Your task to perform on an android device: Search for seafood restaurants on Google Maps Image 0: 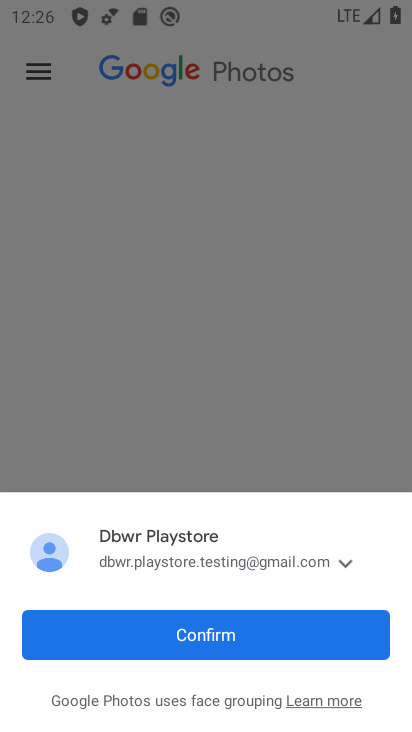
Step 0: press home button
Your task to perform on an android device: Search for seafood restaurants on Google Maps Image 1: 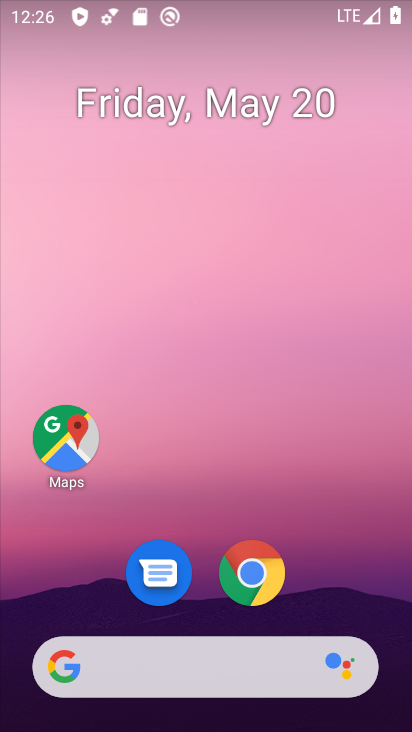
Step 1: click (82, 444)
Your task to perform on an android device: Search for seafood restaurants on Google Maps Image 2: 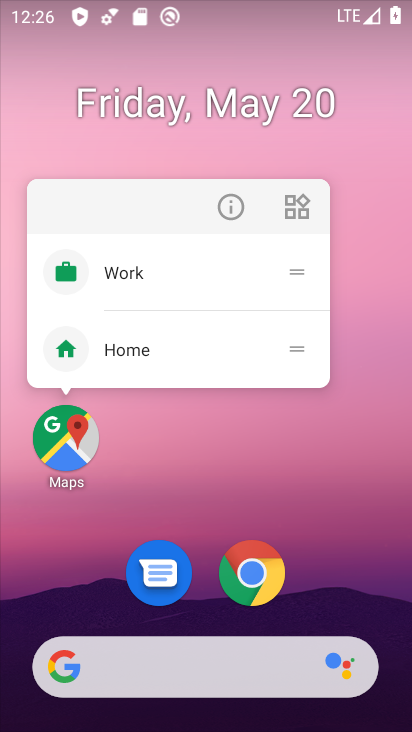
Step 2: click (63, 422)
Your task to perform on an android device: Search for seafood restaurants on Google Maps Image 3: 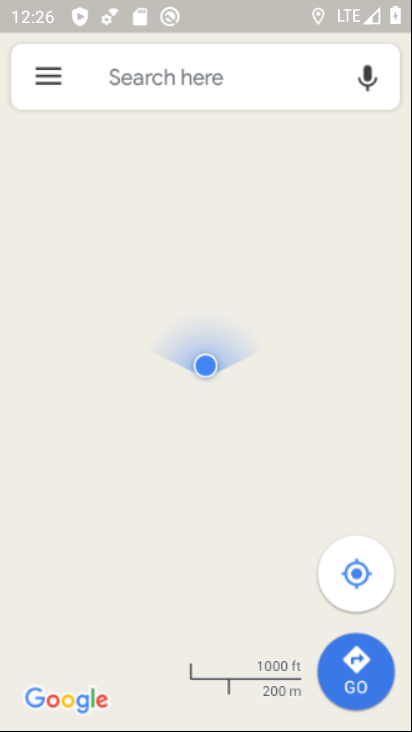
Step 3: click (132, 80)
Your task to perform on an android device: Search for seafood restaurants on Google Maps Image 4: 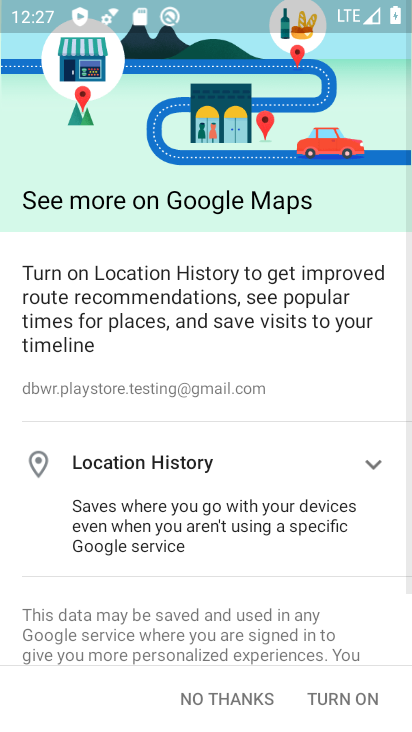
Step 4: type "seafood restaurants"
Your task to perform on an android device: Search for seafood restaurants on Google Maps Image 5: 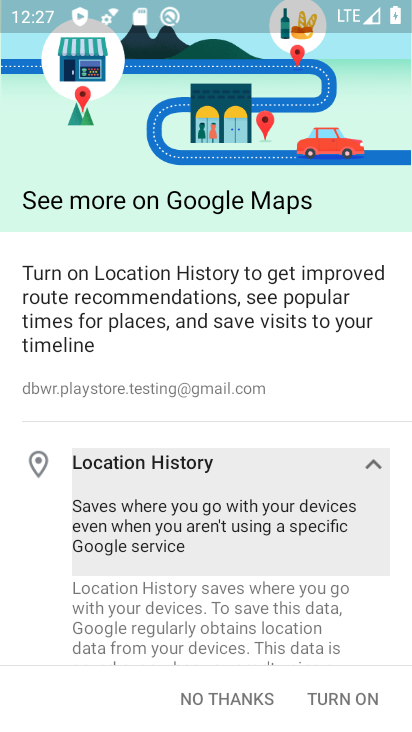
Step 5: click (249, 706)
Your task to perform on an android device: Search for seafood restaurants on Google Maps Image 6: 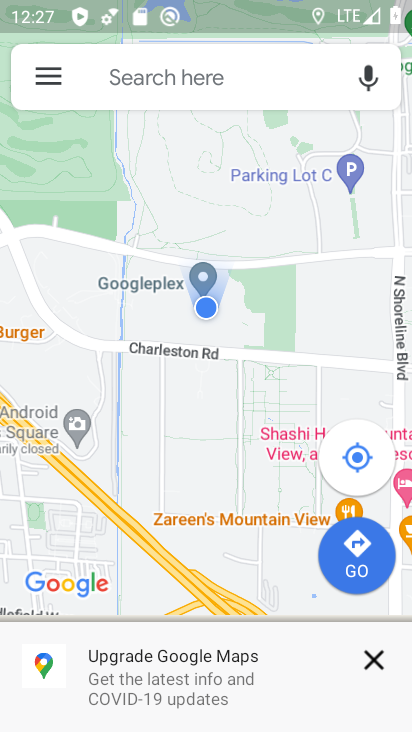
Step 6: click (189, 82)
Your task to perform on an android device: Search for seafood restaurants on Google Maps Image 7: 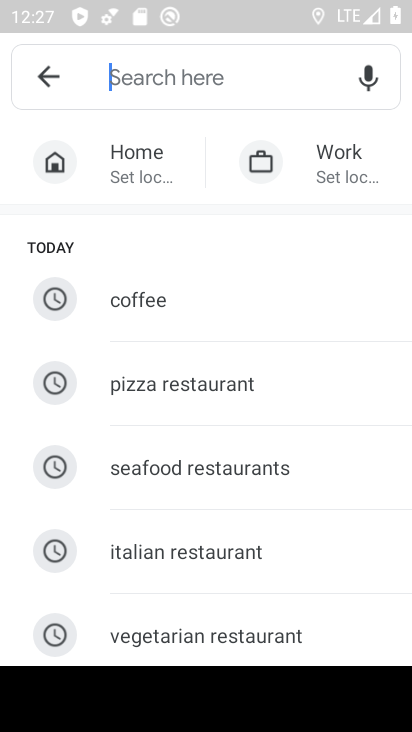
Step 7: type "seafood restaurants"
Your task to perform on an android device: Search for seafood restaurants on Google Maps Image 8: 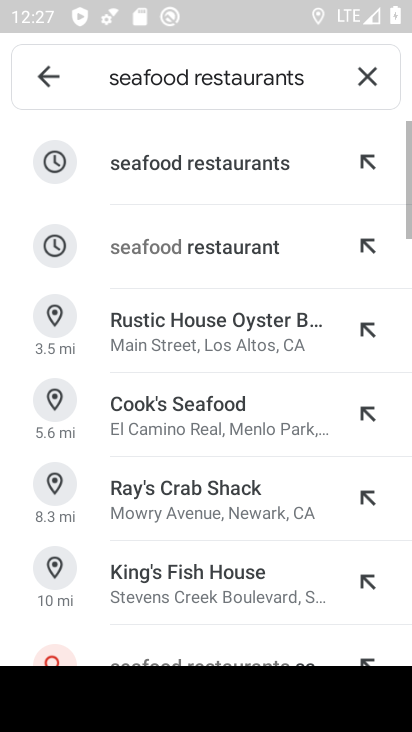
Step 8: click (176, 179)
Your task to perform on an android device: Search for seafood restaurants on Google Maps Image 9: 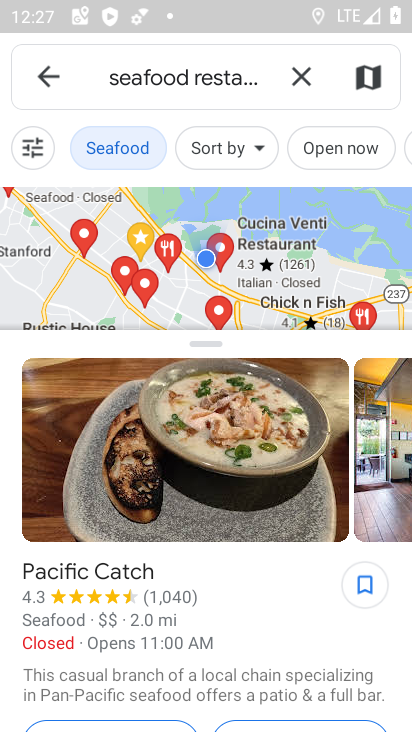
Step 9: task complete